Your task to perform on an android device: add a contact in the contacts app Image 0: 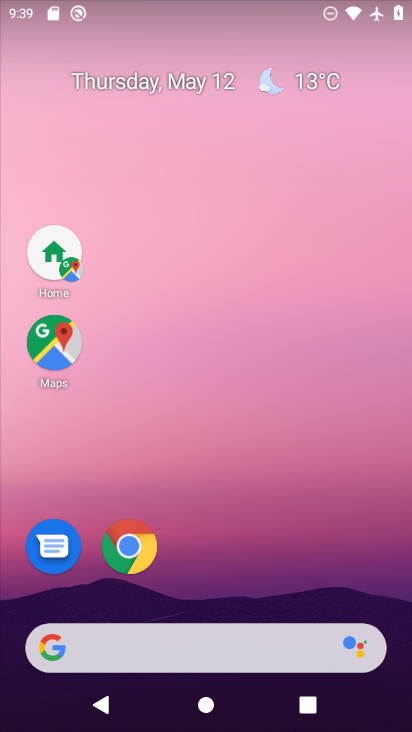
Step 0: drag from (131, 655) to (314, 109)
Your task to perform on an android device: add a contact in the contacts app Image 1: 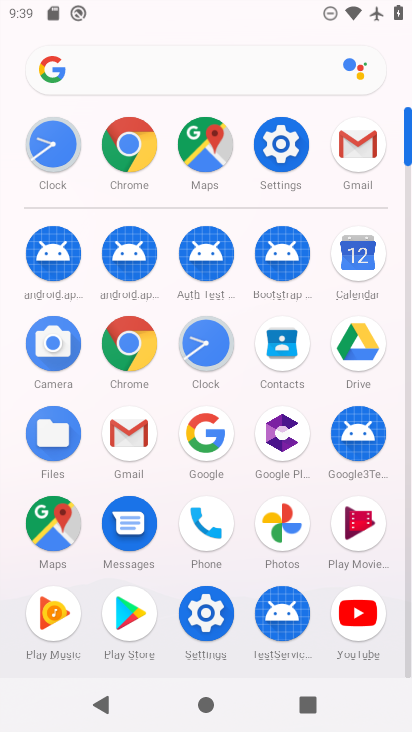
Step 1: click (277, 348)
Your task to perform on an android device: add a contact in the contacts app Image 2: 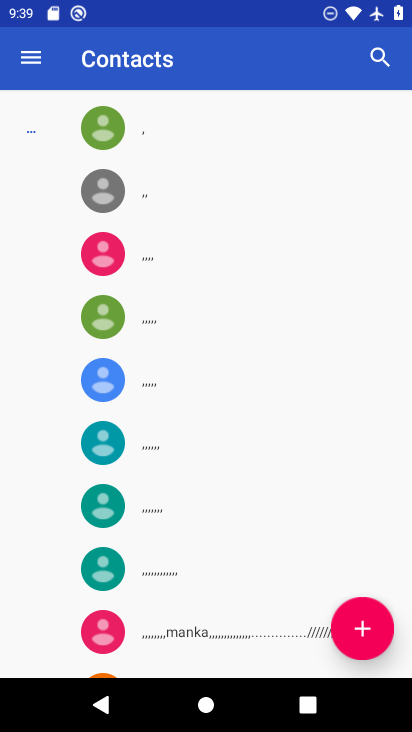
Step 2: click (355, 631)
Your task to perform on an android device: add a contact in the contacts app Image 3: 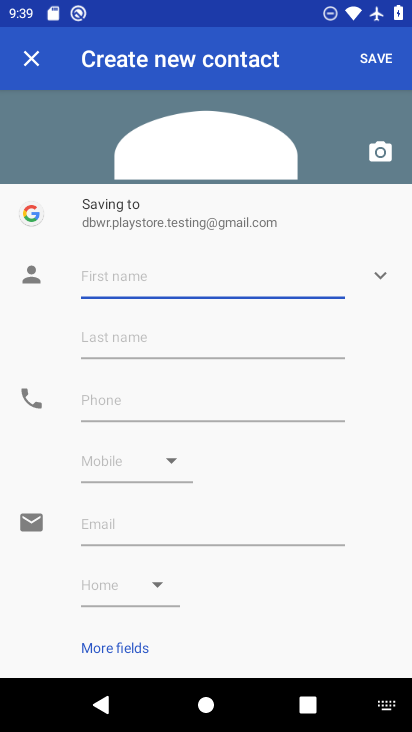
Step 3: type "sder"
Your task to perform on an android device: add a contact in the contacts app Image 4: 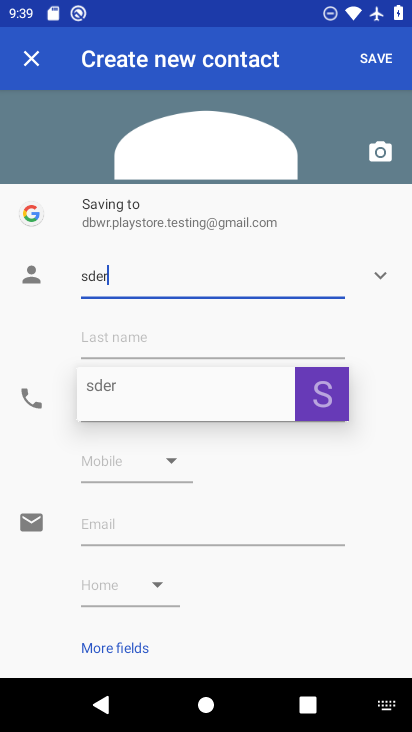
Step 4: type "nnn"
Your task to perform on an android device: add a contact in the contacts app Image 5: 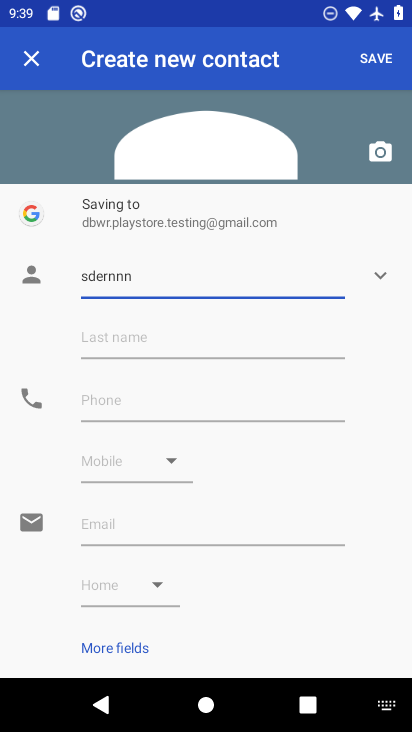
Step 5: click (86, 399)
Your task to perform on an android device: add a contact in the contacts app Image 6: 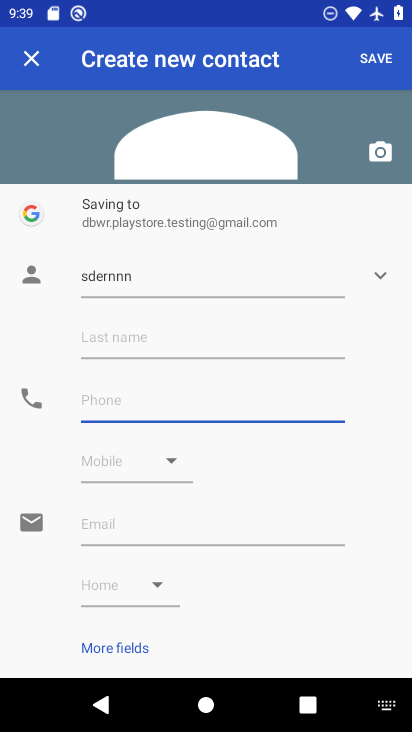
Step 6: type "54980"
Your task to perform on an android device: add a contact in the contacts app Image 7: 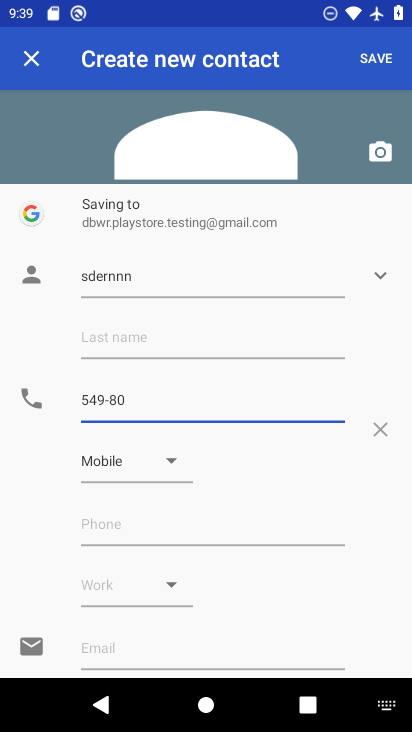
Step 7: click (374, 60)
Your task to perform on an android device: add a contact in the contacts app Image 8: 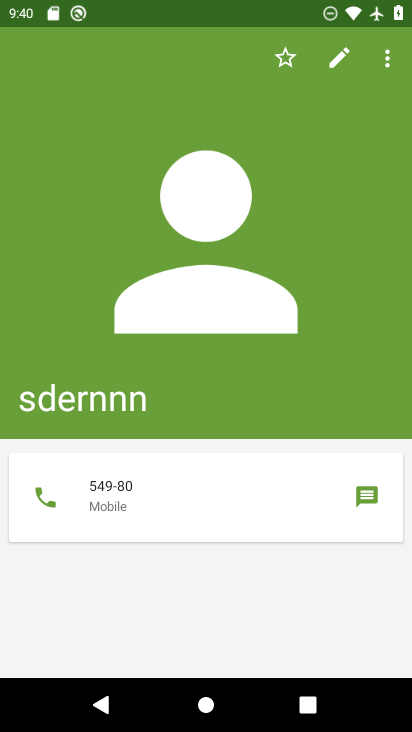
Step 8: task complete